Your task to perform on an android device: What's on my calendar tomorrow? Image 0: 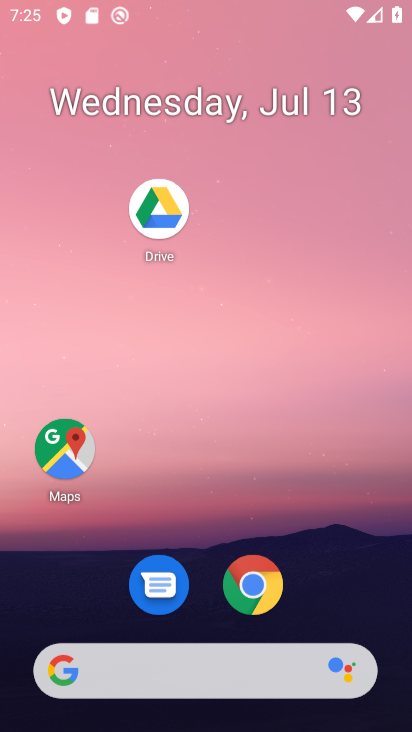
Step 0: click (311, 97)
Your task to perform on an android device: What's on my calendar tomorrow? Image 1: 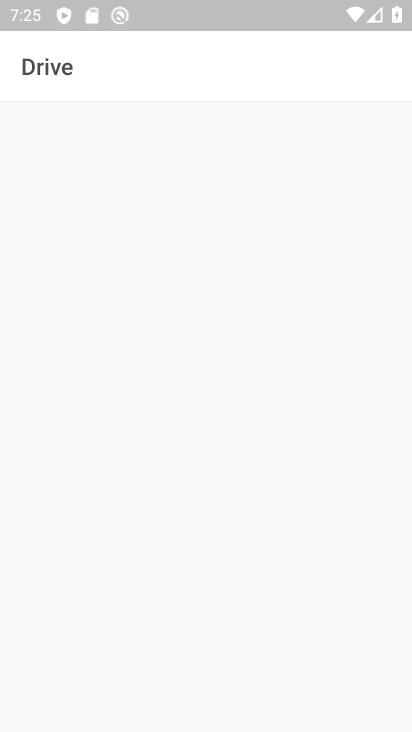
Step 1: press home button
Your task to perform on an android device: What's on my calendar tomorrow? Image 2: 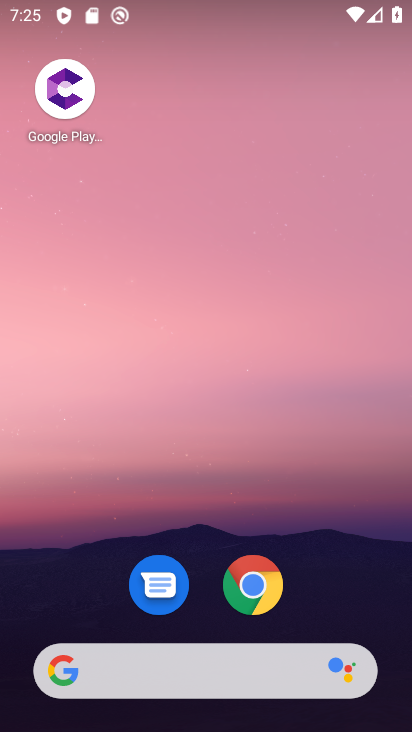
Step 2: drag from (153, 680) to (316, 74)
Your task to perform on an android device: What's on my calendar tomorrow? Image 3: 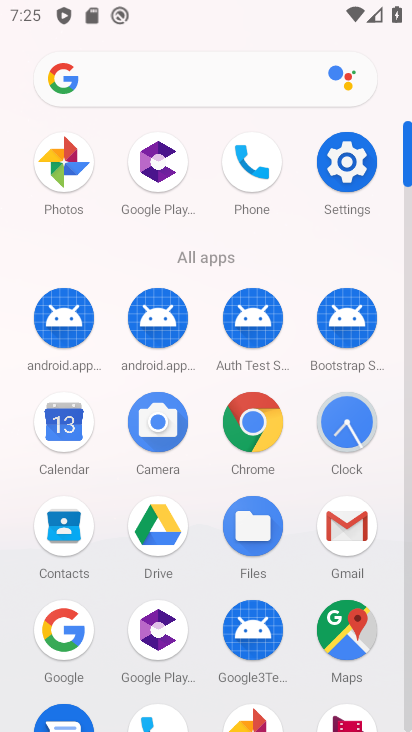
Step 3: click (64, 420)
Your task to perform on an android device: What's on my calendar tomorrow? Image 4: 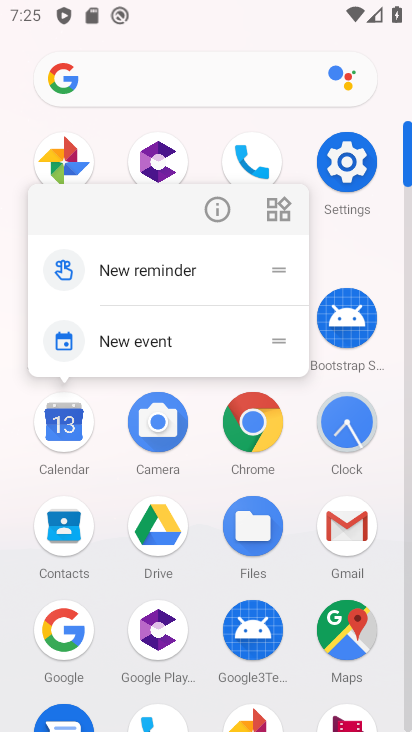
Step 4: click (63, 423)
Your task to perform on an android device: What's on my calendar tomorrow? Image 5: 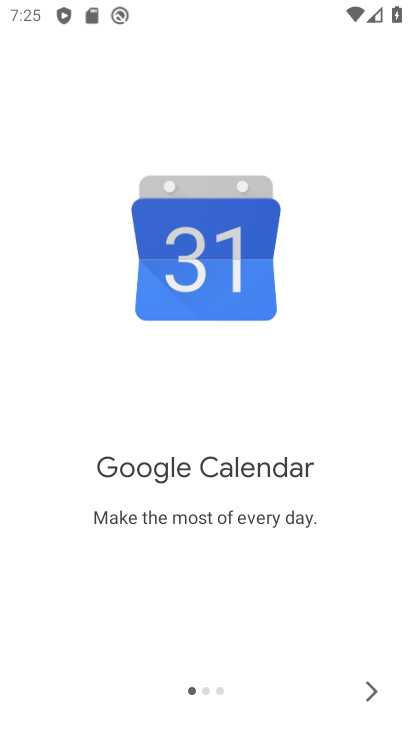
Step 5: click (368, 683)
Your task to perform on an android device: What's on my calendar tomorrow? Image 6: 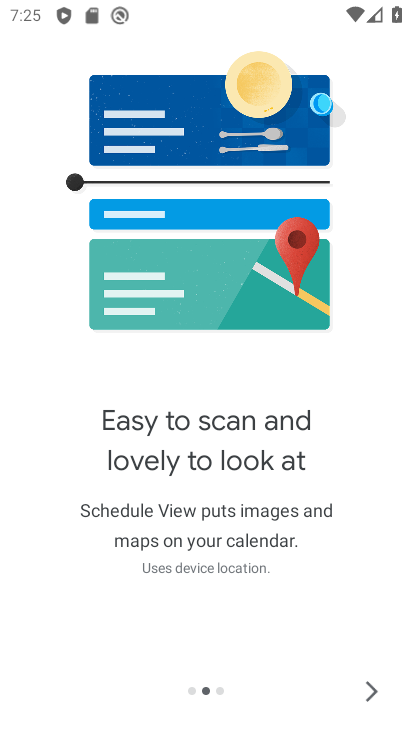
Step 6: click (369, 699)
Your task to perform on an android device: What's on my calendar tomorrow? Image 7: 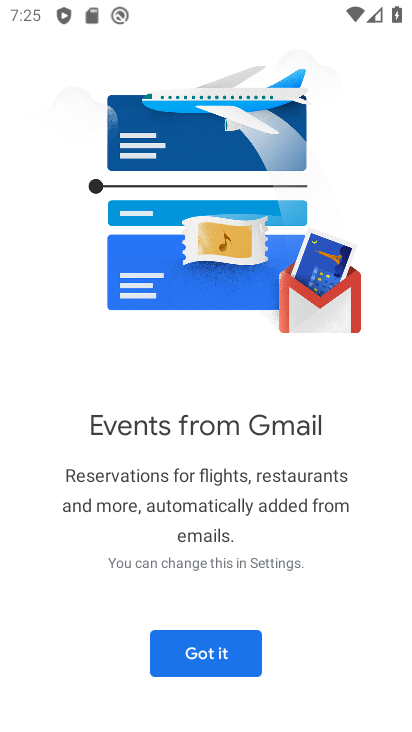
Step 7: click (210, 656)
Your task to perform on an android device: What's on my calendar tomorrow? Image 8: 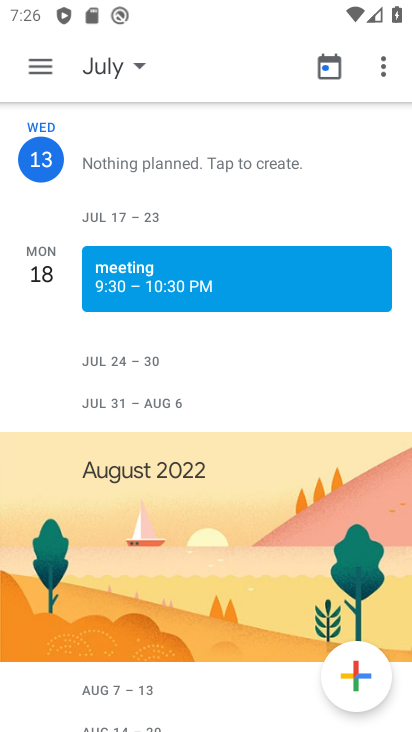
Step 8: click (94, 58)
Your task to perform on an android device: What's on my calendar tomorrow? Image 9: 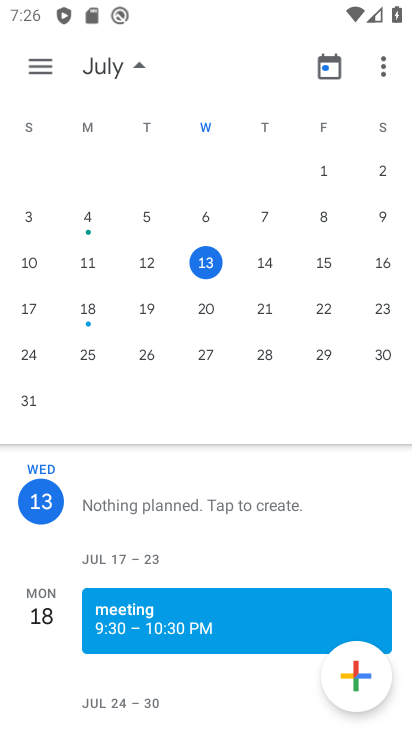
Step 9: click (265, 267)
Your task to perform on an android device: What's on my calendar tomorrow? Image 10: 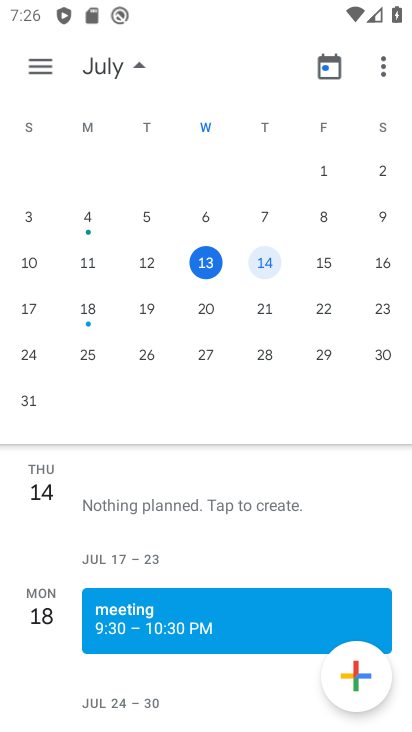
Step 10: click (44, 68)
Your task to perform on an android device: What's on my calendar tomorrow? Image 11: 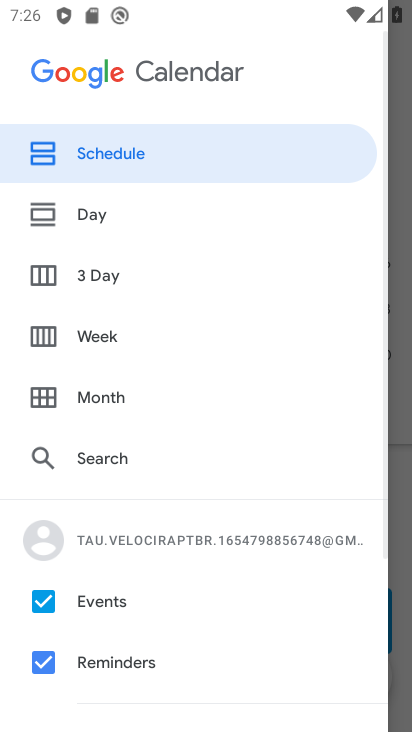
Step 11: click (86, 219)
Your task to perform on an android device: What's on my calendar tomorrow? Image 12: 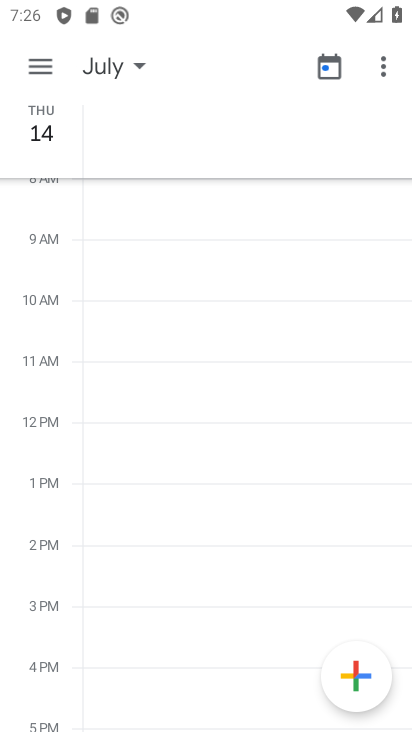
Step 12: click (31, 65)
Your task to perform on an android device: What's on my calendar tomorrow? Image 13: 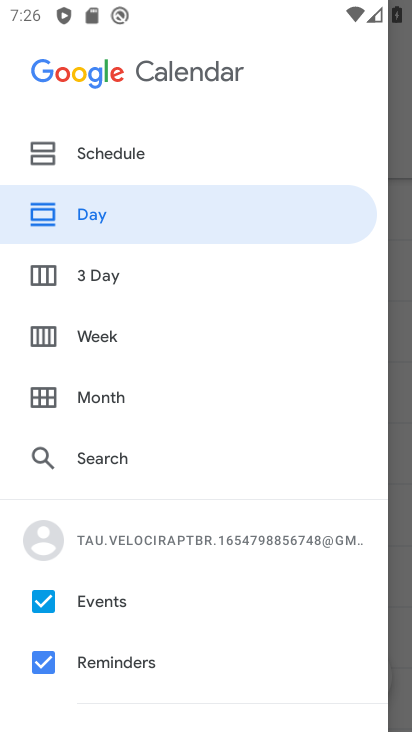
Step 13: click (93, 158)
Your task to perform on an android device: What's on my calendar tomorrow? Image 14: 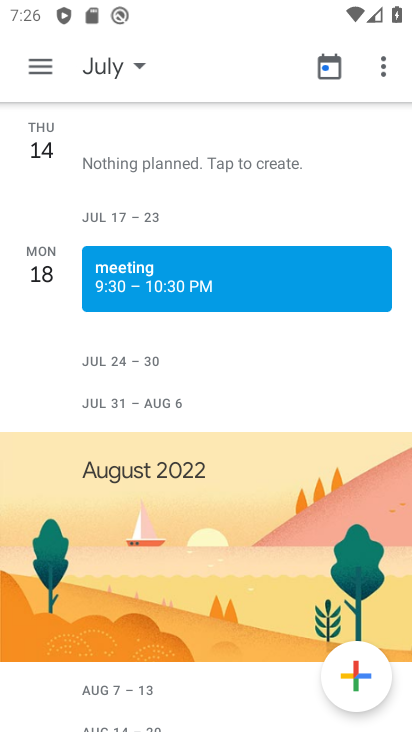
Step 14: task complete